Your task to perform on an android device: View the shopping cart on amazon.com. Add "apple airpods" to the cart on amazon.com Image 0: 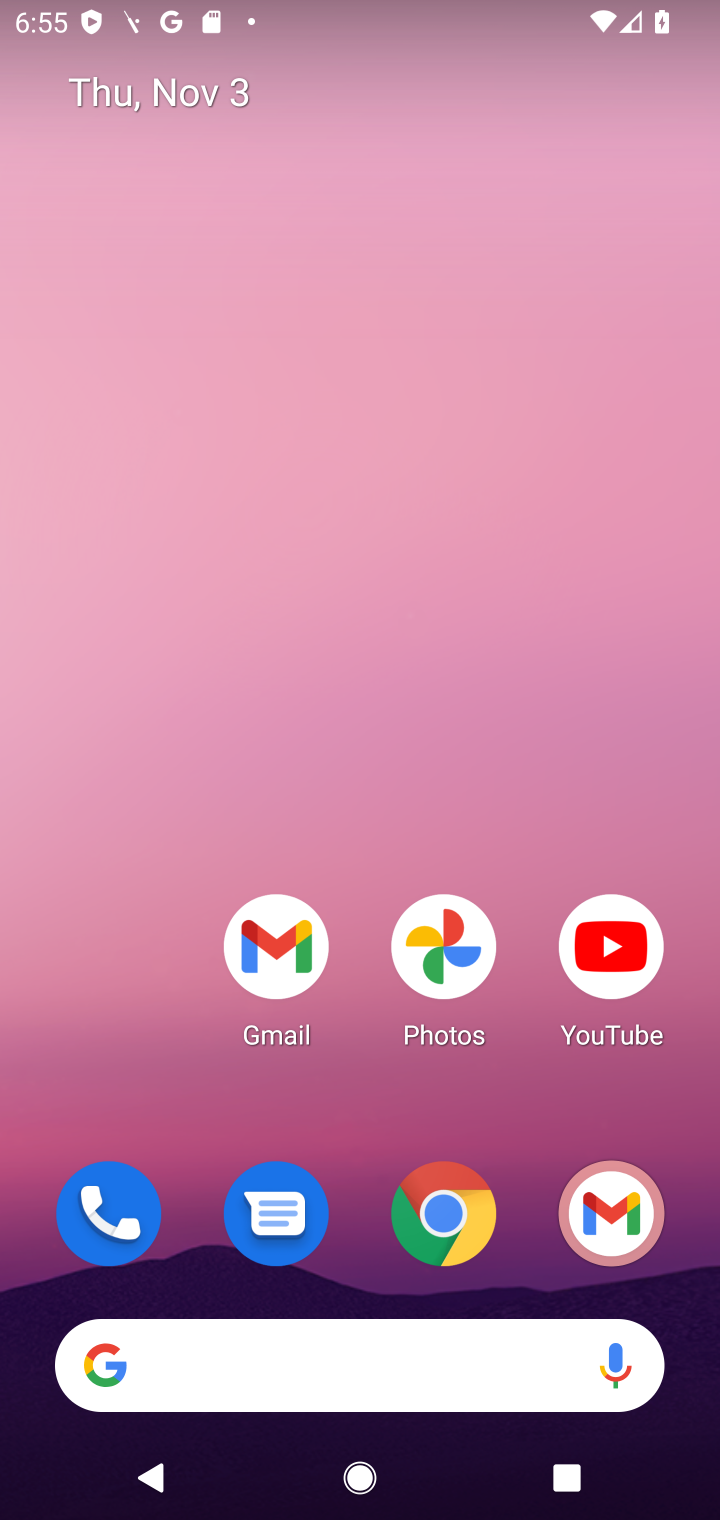
Step 0: click (439, 1213)
Your task to perform on an android device: View the shopping cart on amazon.com. Add "apple airpods" to the cart on amazon.com Image 1: 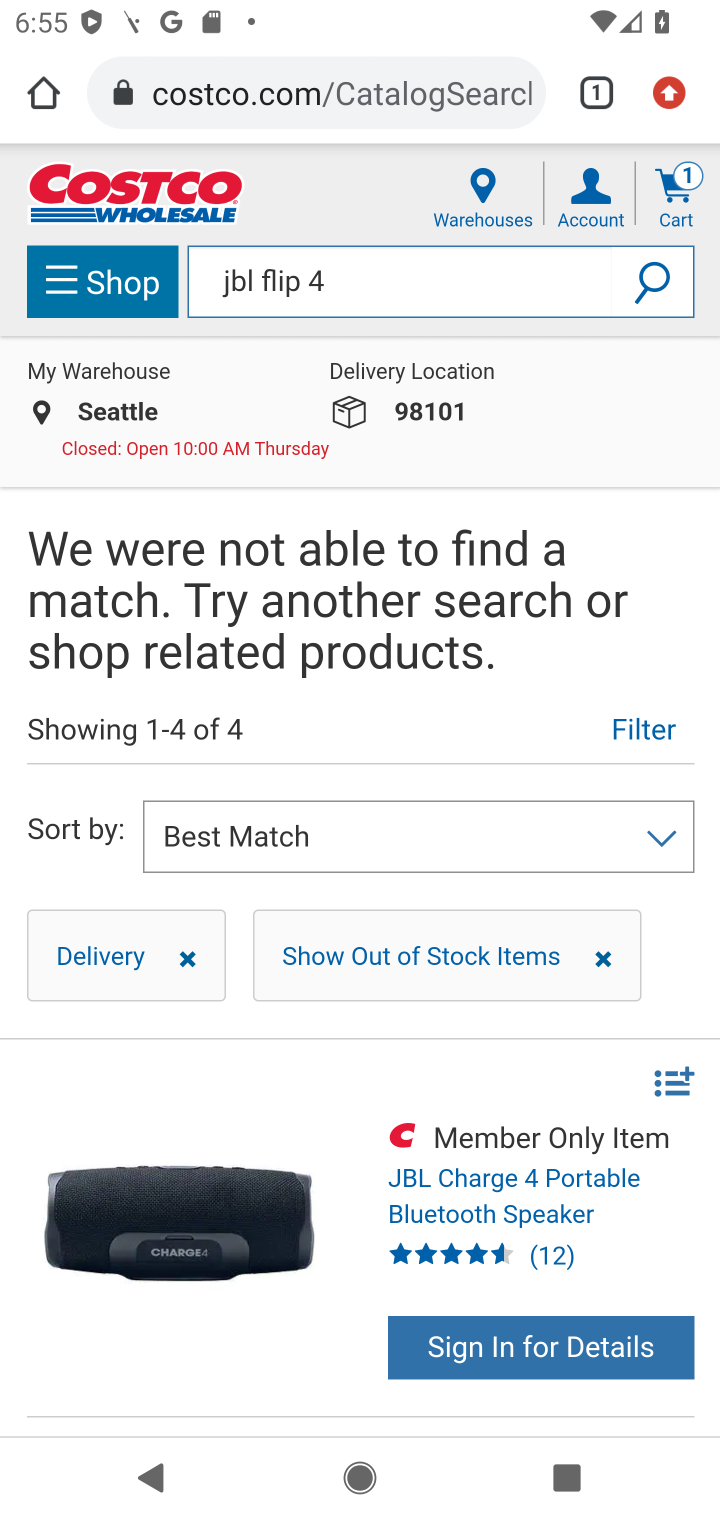
Step 1: click (349, 91)
Your task to perform on an android device: View the shopping cart on amazon.com. Add "apple airpods" to the cart on amazon.com Image 2: 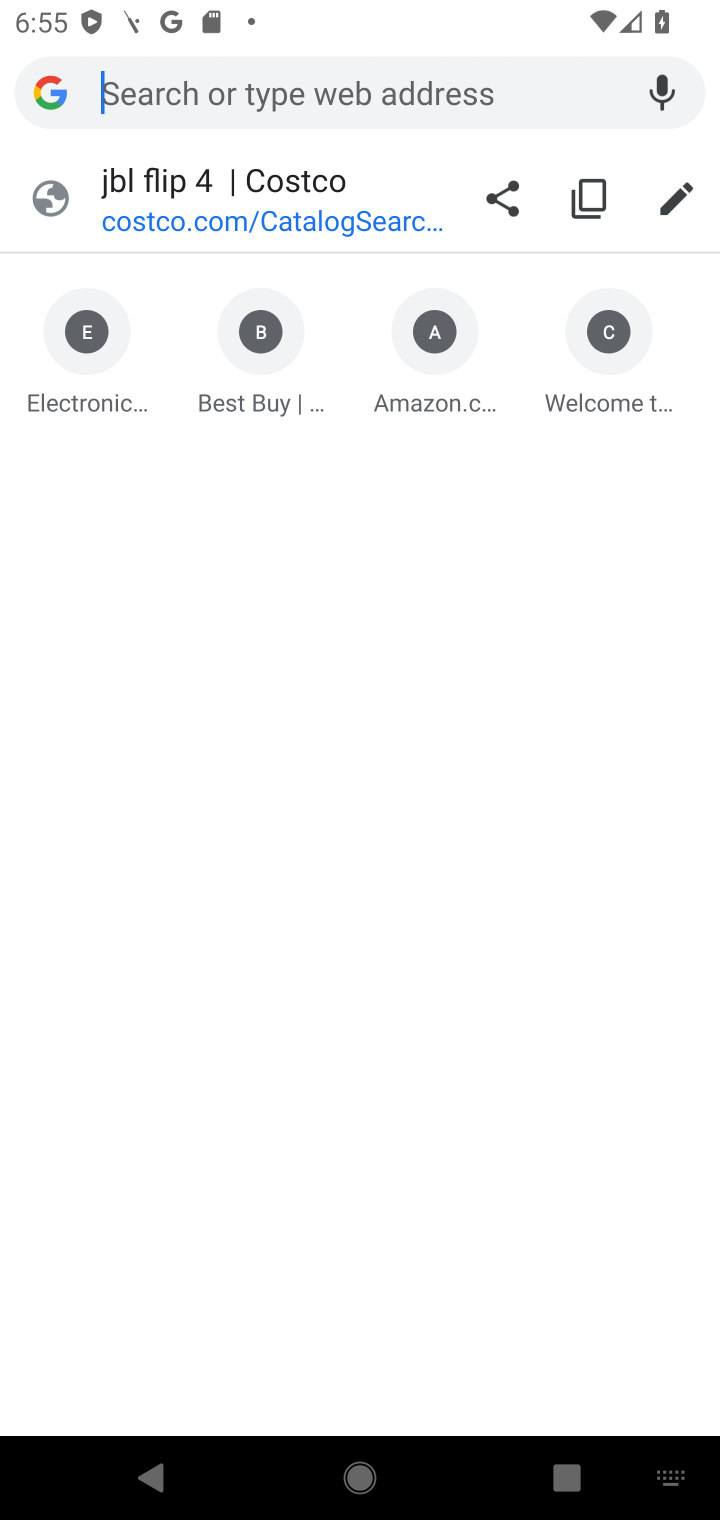
Step 2: type "amazon.com"
Your task to perform on an android device: View the shopping cart on amazon.com. Add "apple airpods" to the cart on amazon.com Image 3: 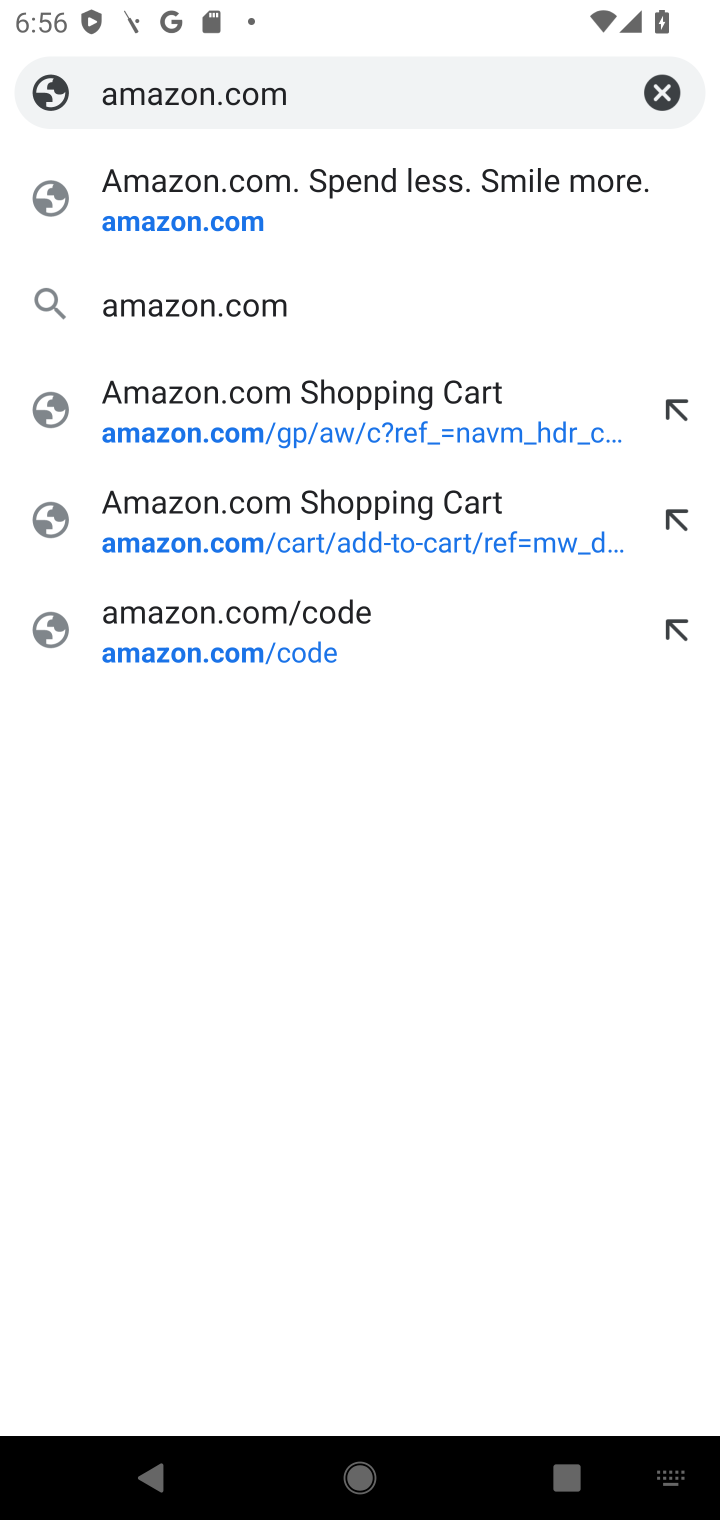
Step 3: click (200, 225)
Your task to perform on an android device: View the shopping cart on amazon.com. Add "apple airpods" to the cart on amazon.com Image 4: 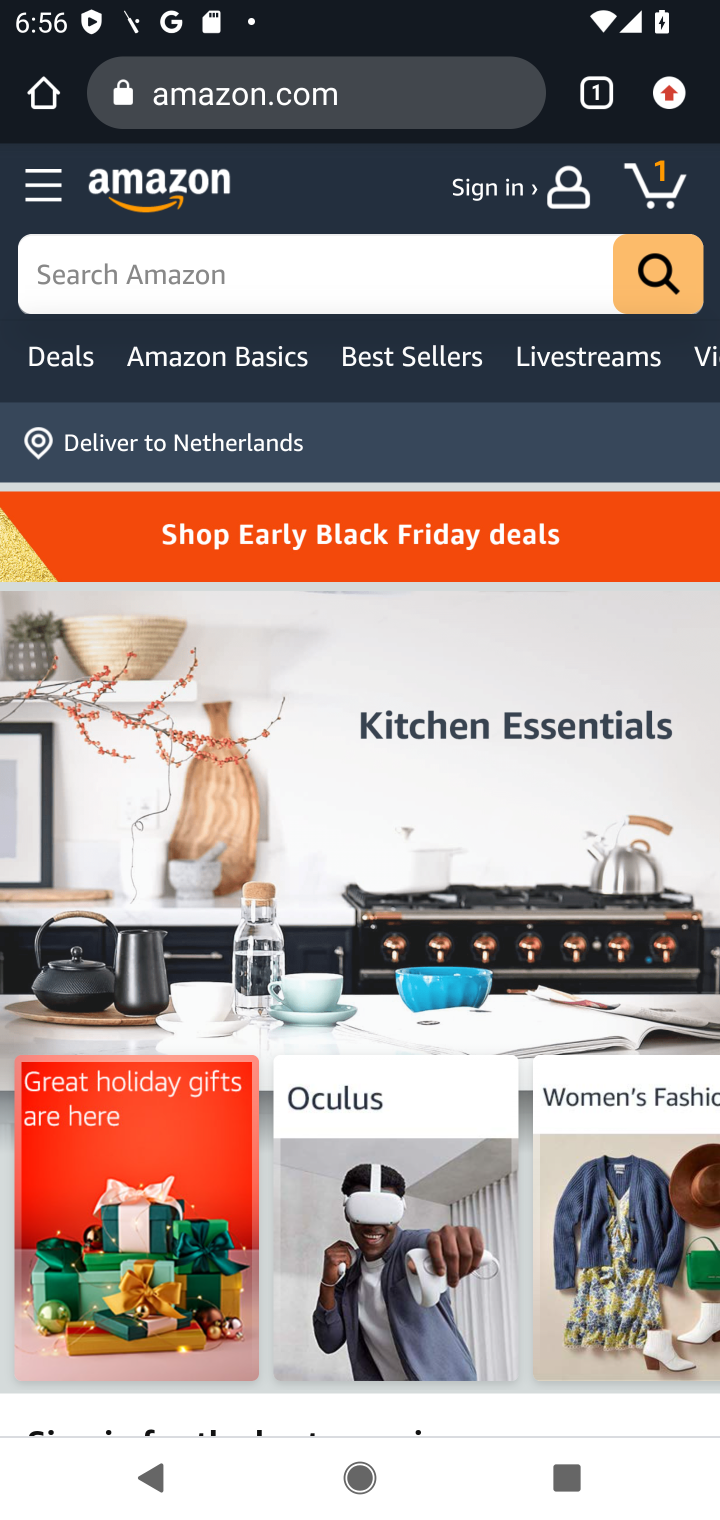
Step 4: click (250, 289)
Your task to perform on an android device: View the shopping cart on amazon.com. Add "apple airpods" to the cart on amazon.com Image 5: 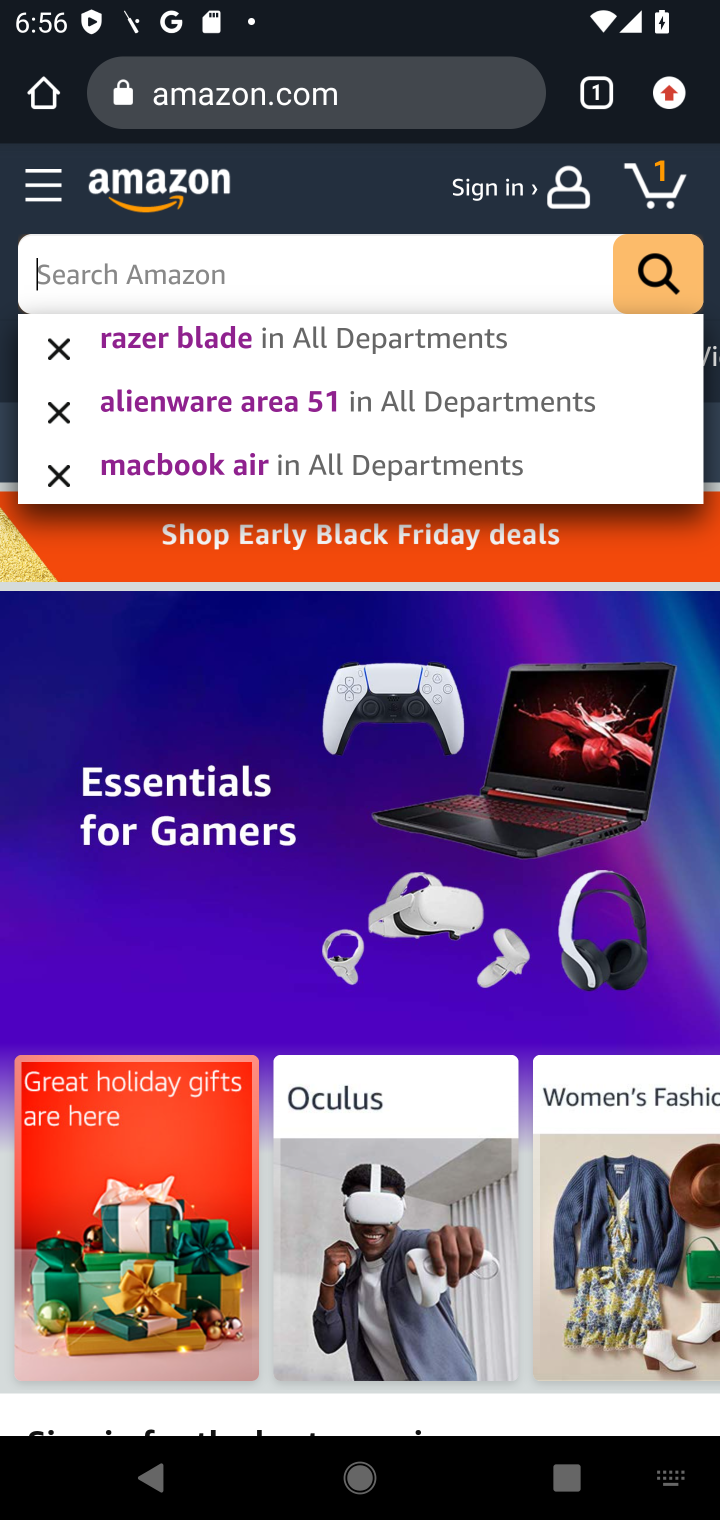
Step 5: type "apple airpods"
Your task to perform on an android device: View the shopping cart on amazon.com. Add "apple airpods" to the cart on amazon.com Image 6: 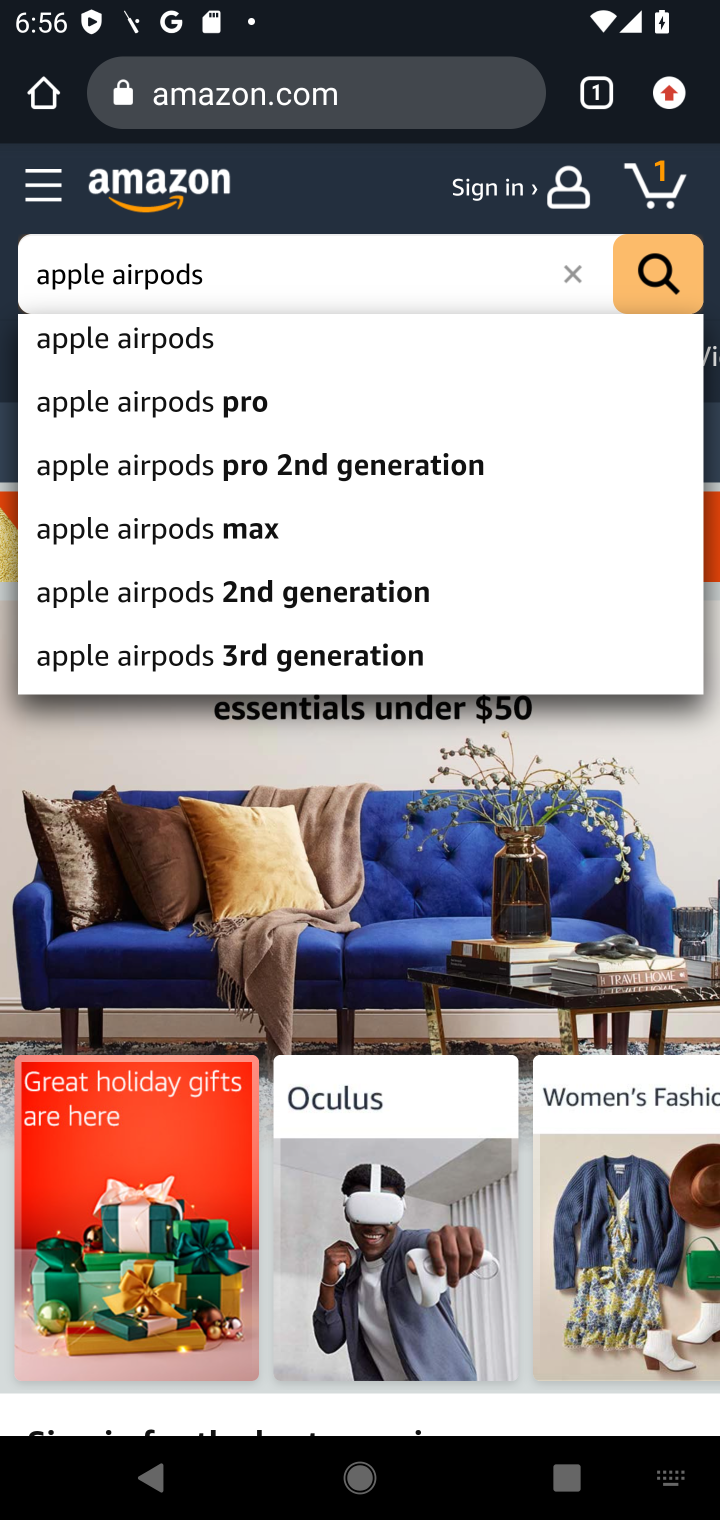
Step 6: click (156, 343)
Your task to perform on an android device: View the shopping cart on amazon.com. Add "apple airpods" to the cart on amazon.com Image 7: 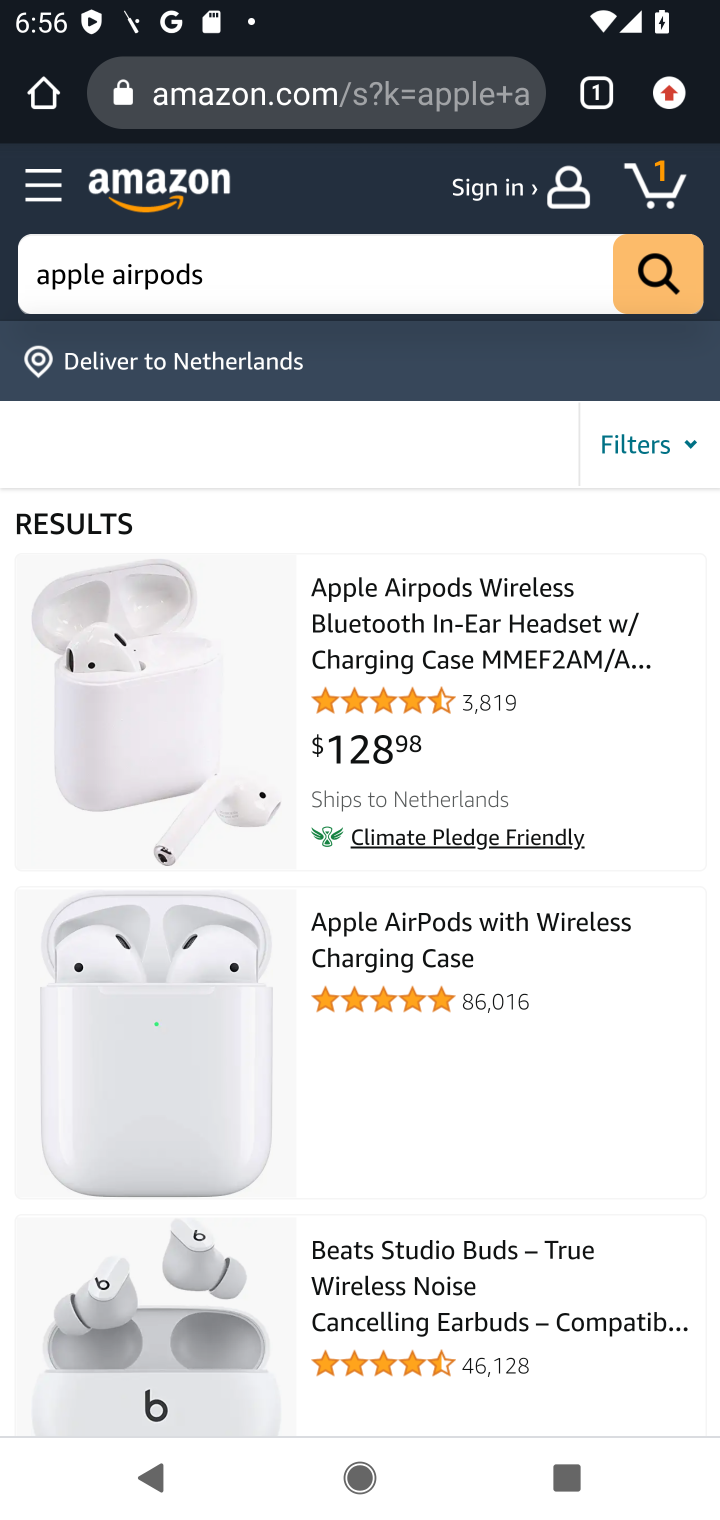
Step 7: click (247, 723)
Your task to perform on an android device: View the shopping cart on amazon.com. Add "apple airpods" to the cart on amazon.com Image 8: 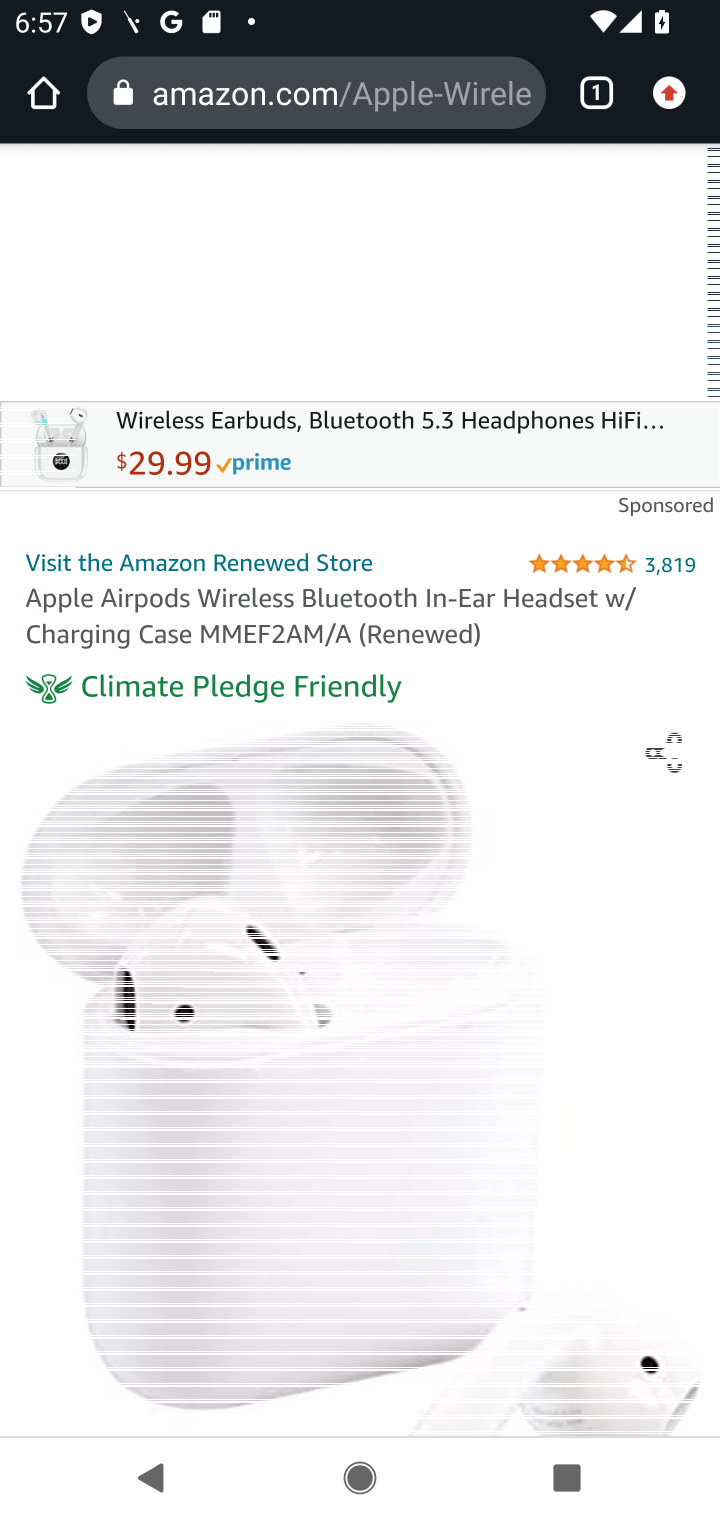
Step 8: drag from (284, 1065) to (331, 308)
Your task to perform on an android device: View the shopping cart on amazon.com. Add "apple airpods" to the cart on amazon.com Image 9: 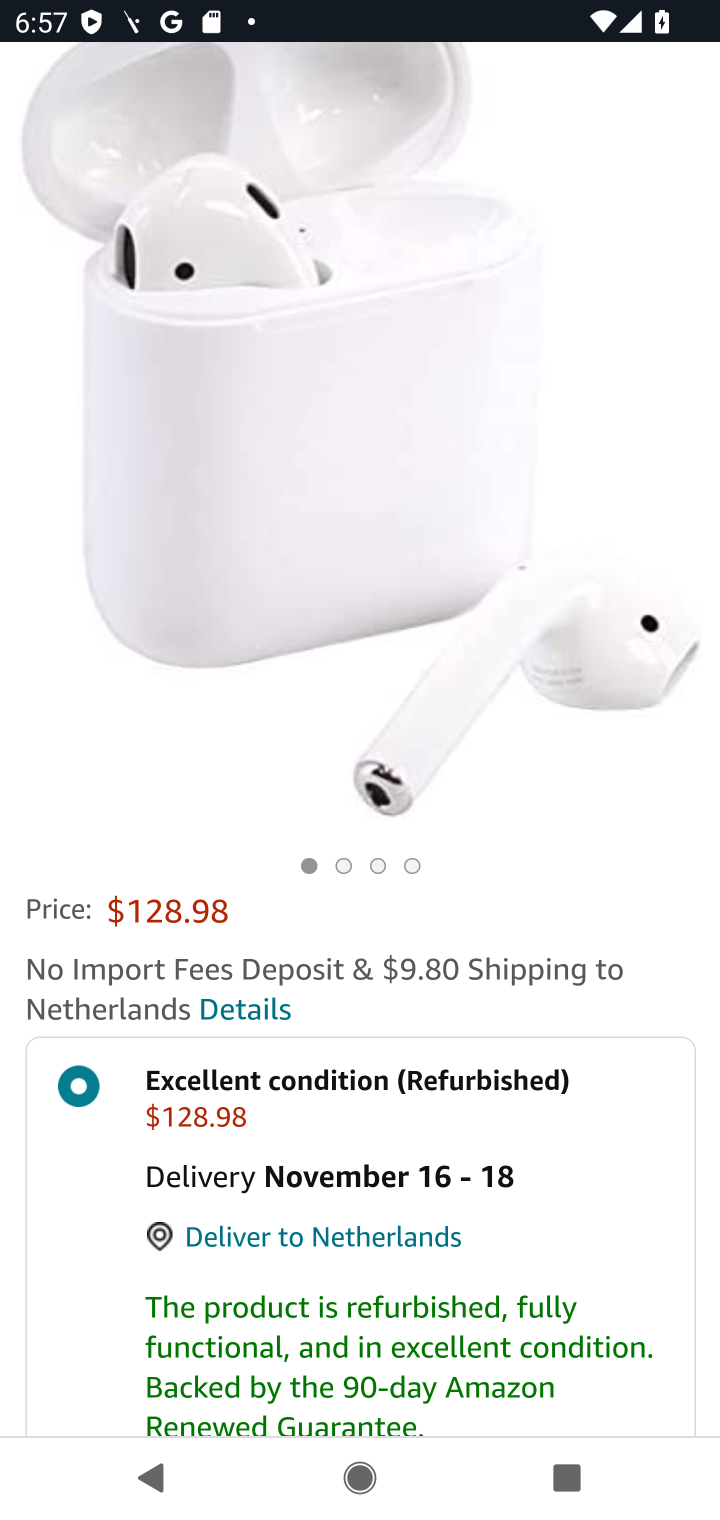
Step 9: drag from (300, 1211) to (324, 391)
Your task to perform on an android device: View the shopping cart on amazon.com. Add "apple airpods" to the cart on amazon.com Image 10: 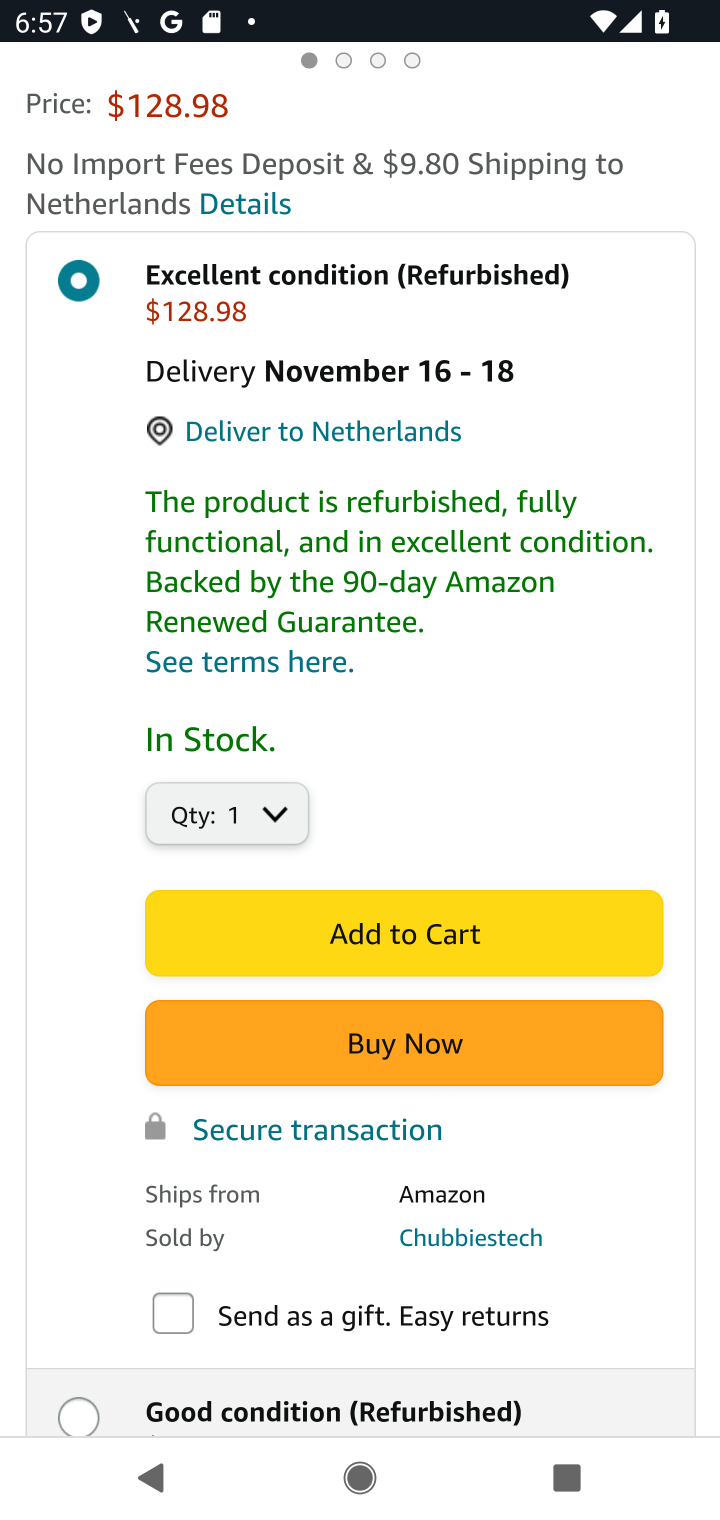
Step 10: click (380, 932)
Your task to perform on an android device: View the shopping cart on amazon.com. Add "apple airpods" to the cart on amazon.com Image 11: 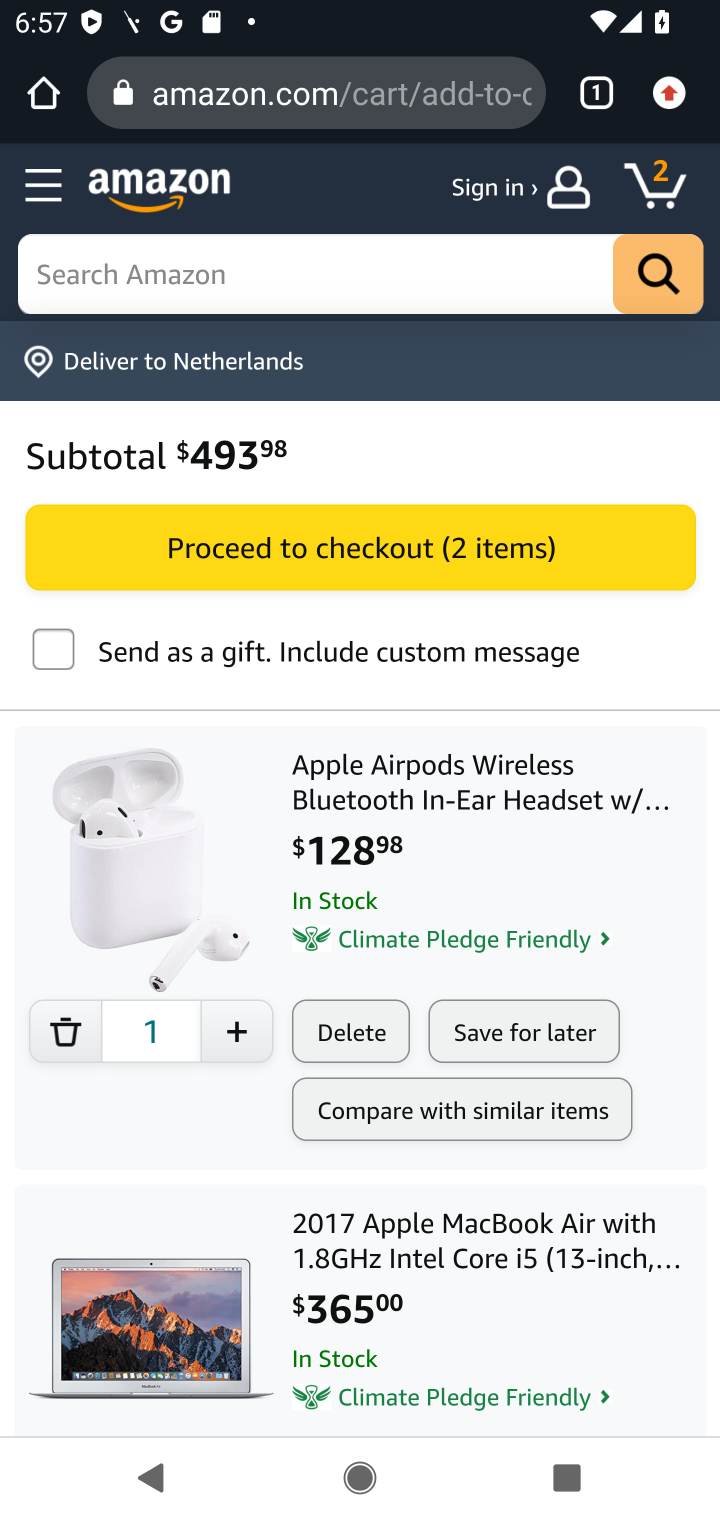
Step 11: task complete